Your task to perform on an android device: Go to Android settings Image 0: 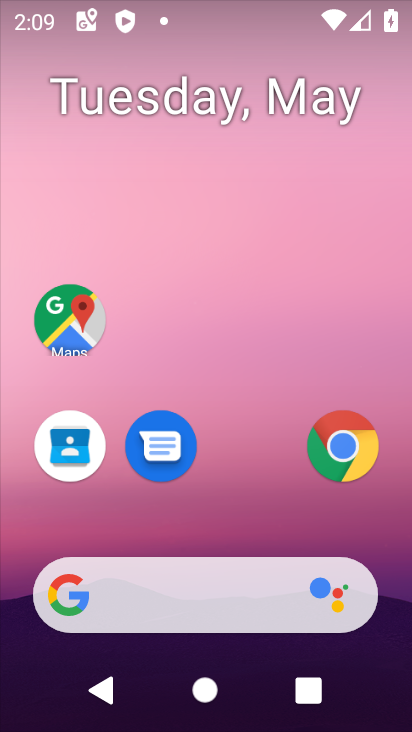
Step 0: drag from (245, 486) to (217, 19)
Your task to perform on an android device: Go to Android settings Image 1: 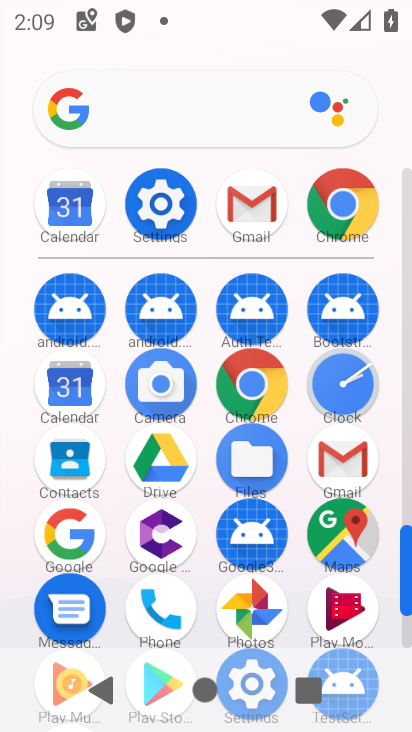
Step 1: click (168, 220)
Your task to perform on an android device: Go to Android settings Image 2: 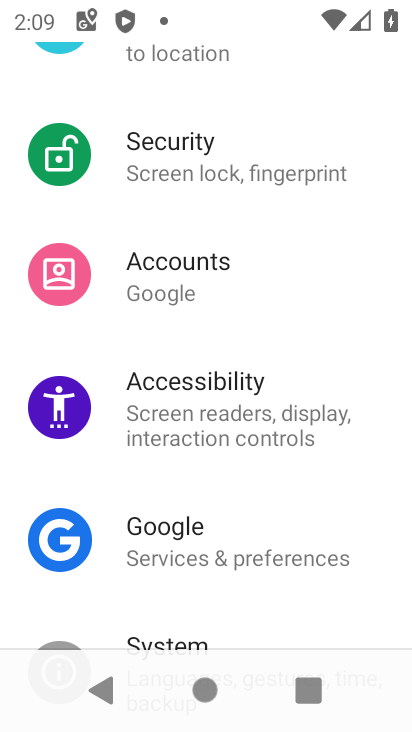
Step 2: task complete